Your task to perform on an android device: open app "Truecaller" Image 0: 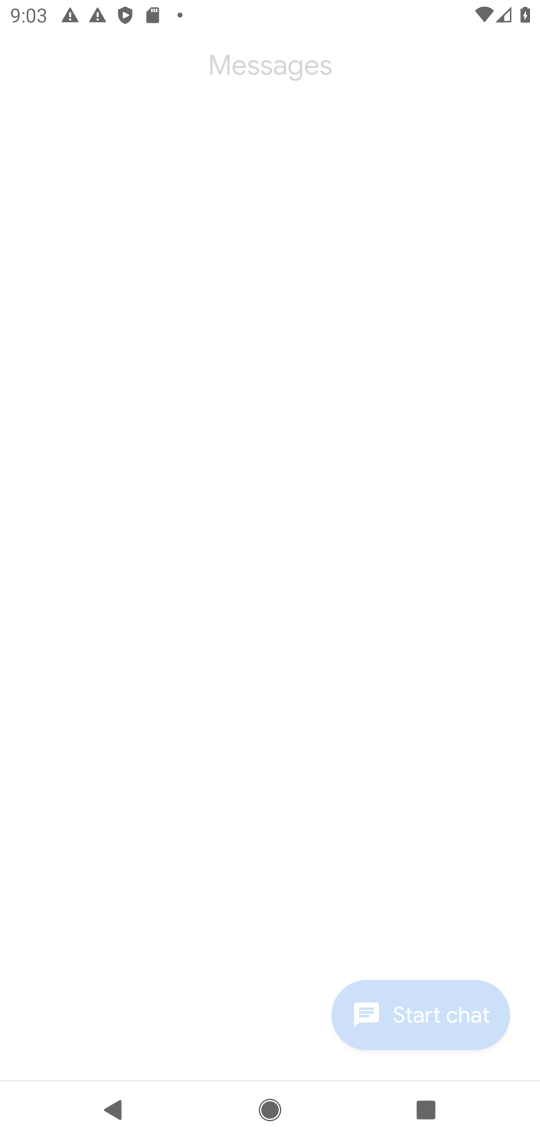
Step 0: click (446, 62)
Your task to perform on an android device: open app "Truecaller" Image 1: 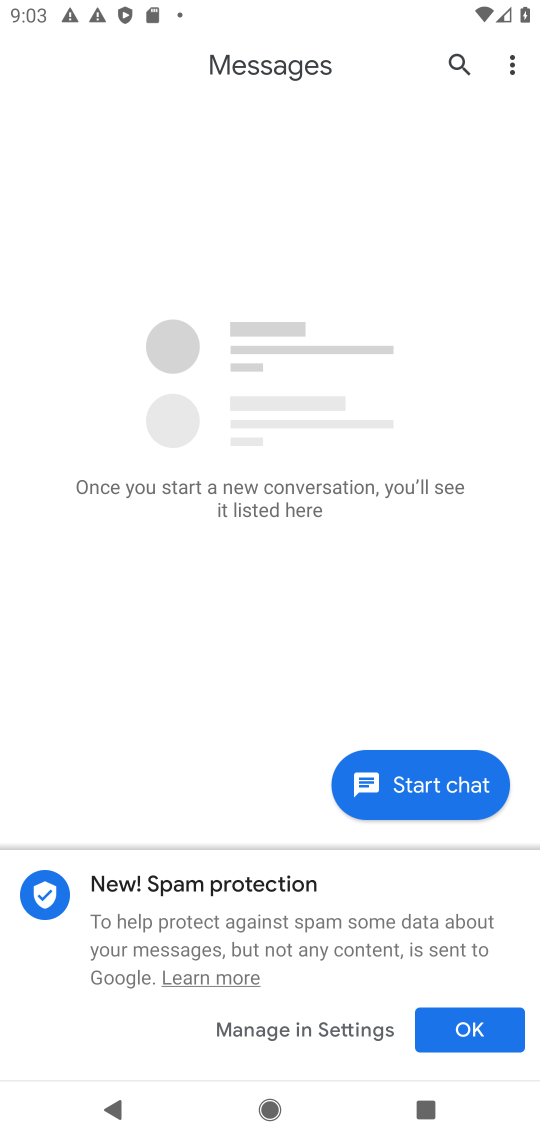
Step 1: press home button
Your task to perform on an android device: open app "Truecaller" Image 2: 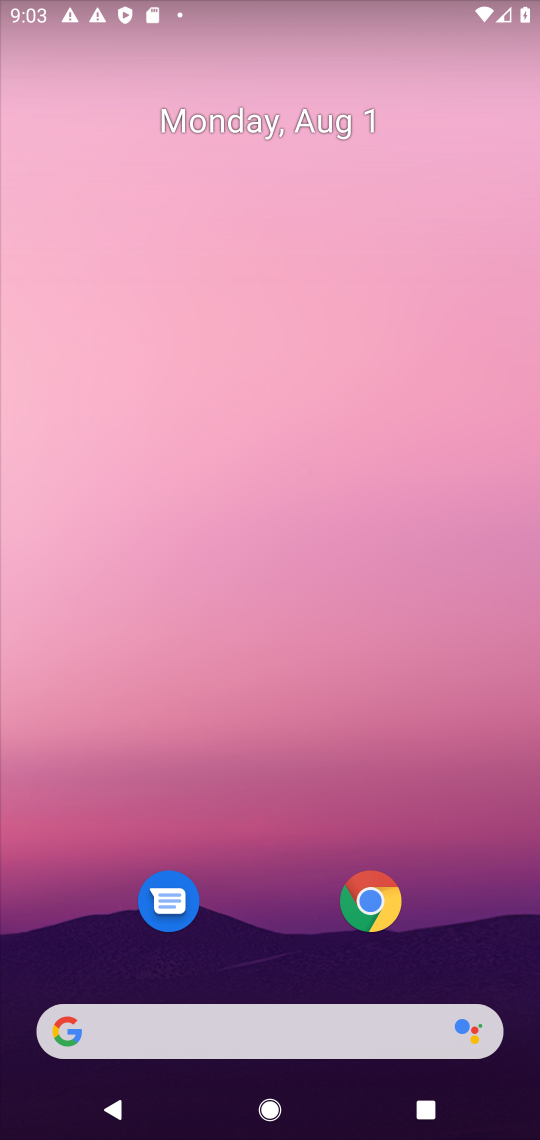
Step 2: drag from (267, 914) to (479, 10)
Your task to perform on an android device: open app "Truecaller" Image 3: 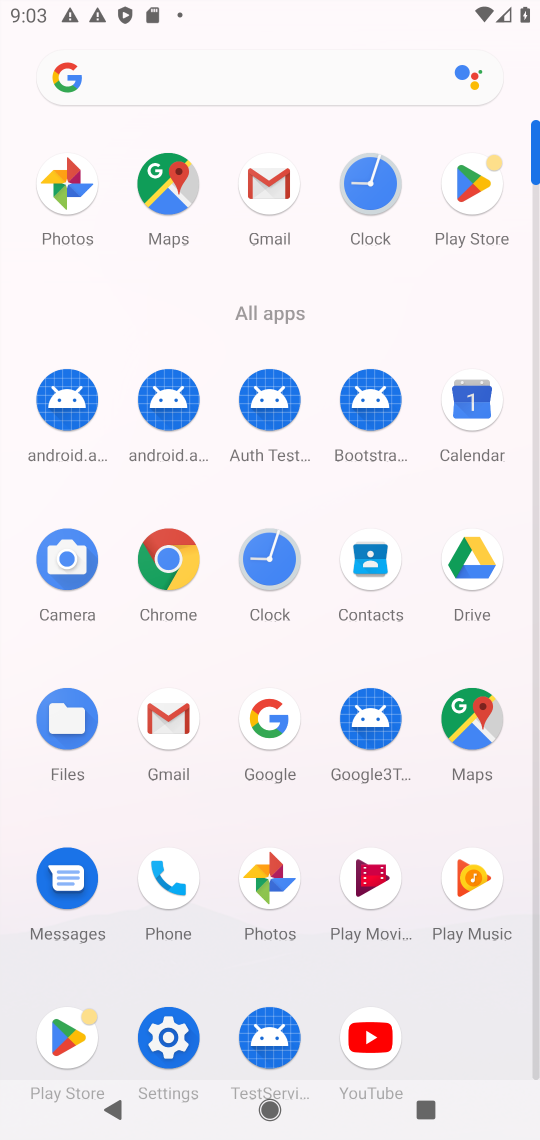
Step 3: click (468, 195)
Your task to perform on an android device: open app "Truecaller" Image 4: 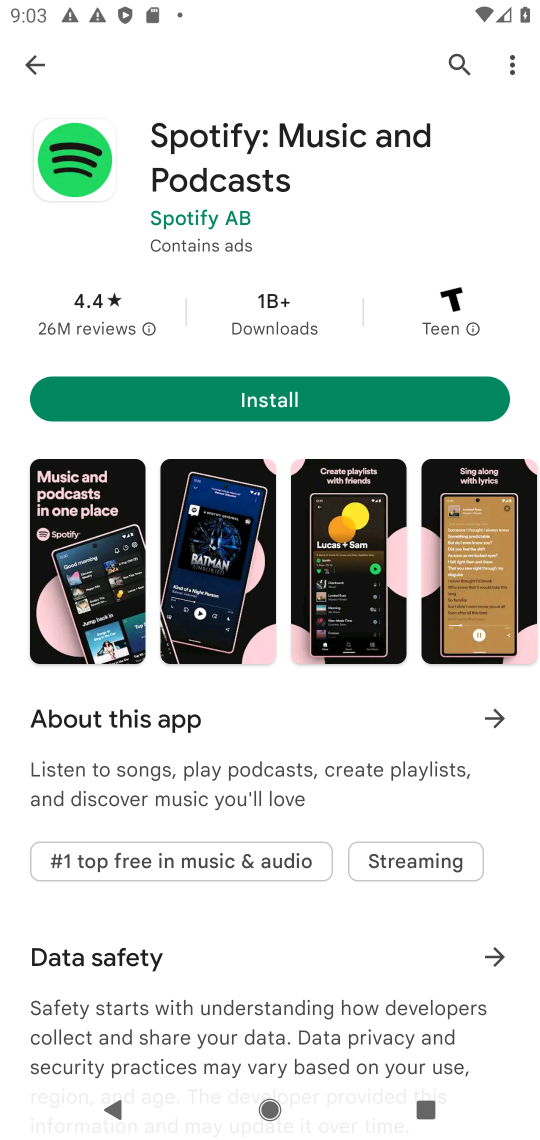
Step 4: click (461, 59)
Your task to perform on an android device: open app "Truecaller" Image 5: 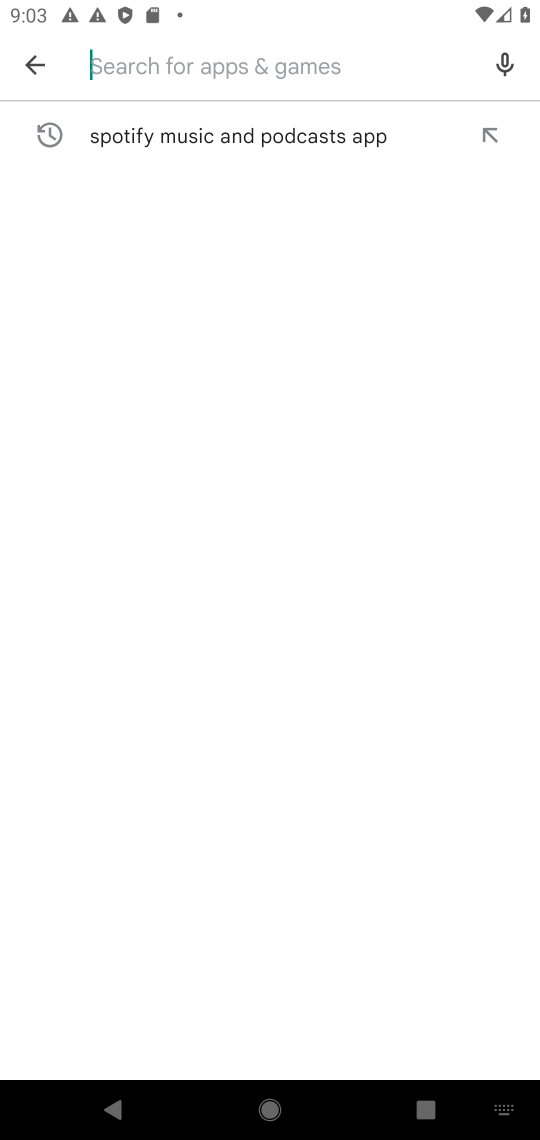
Step 5: type "truecaller"
Your task to perform on an android device: open app "Truecaller" Image 6: 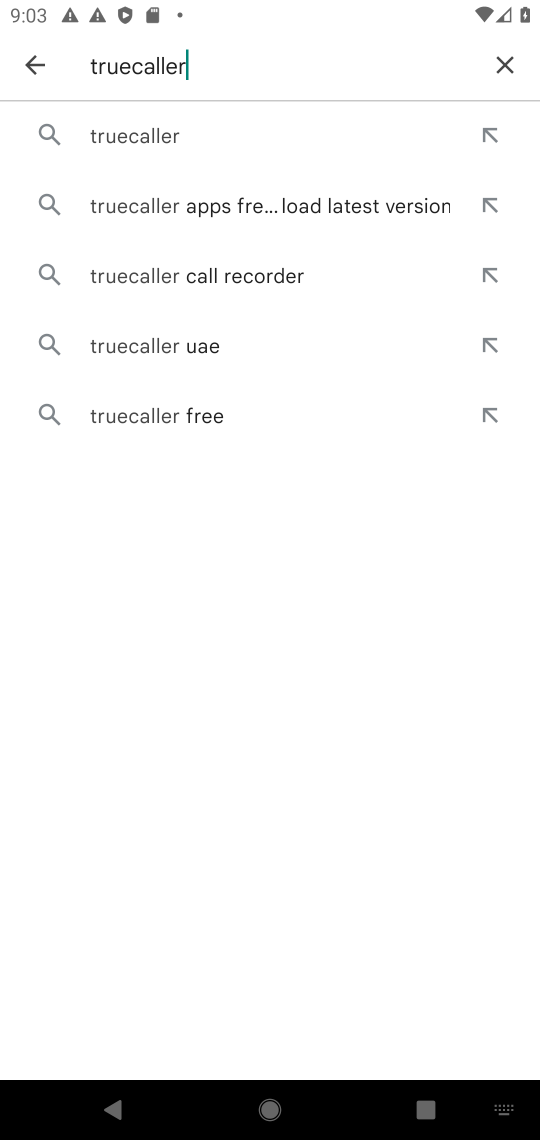
Step 6: click (284, 122)
Your task to perform on an android device: open app "Truecaller" Image 7: 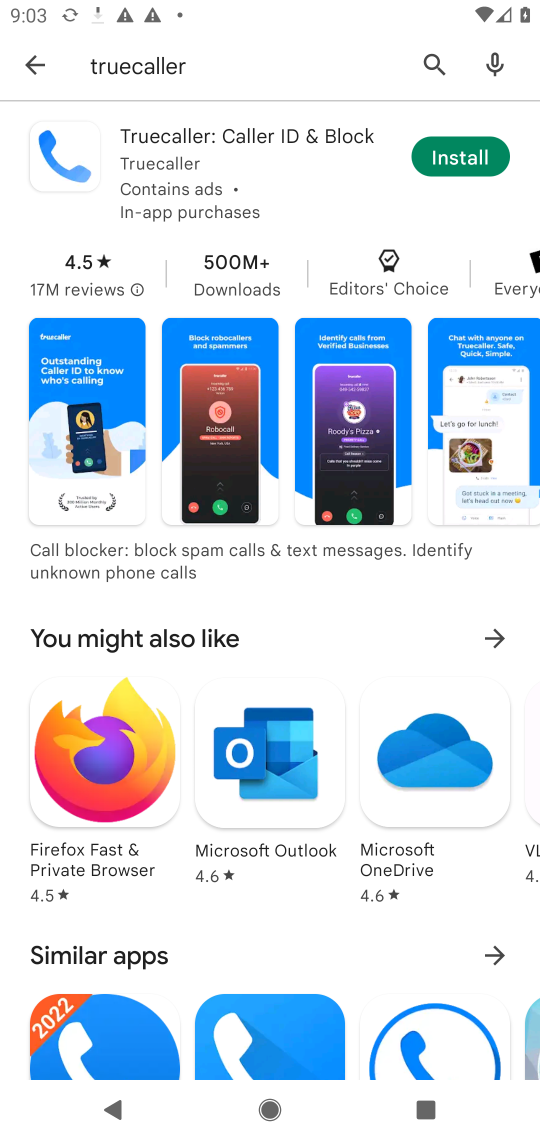
Step 7: click (250, 153)
Your task to perform on an android device: open app "Truecaller" Image 8: 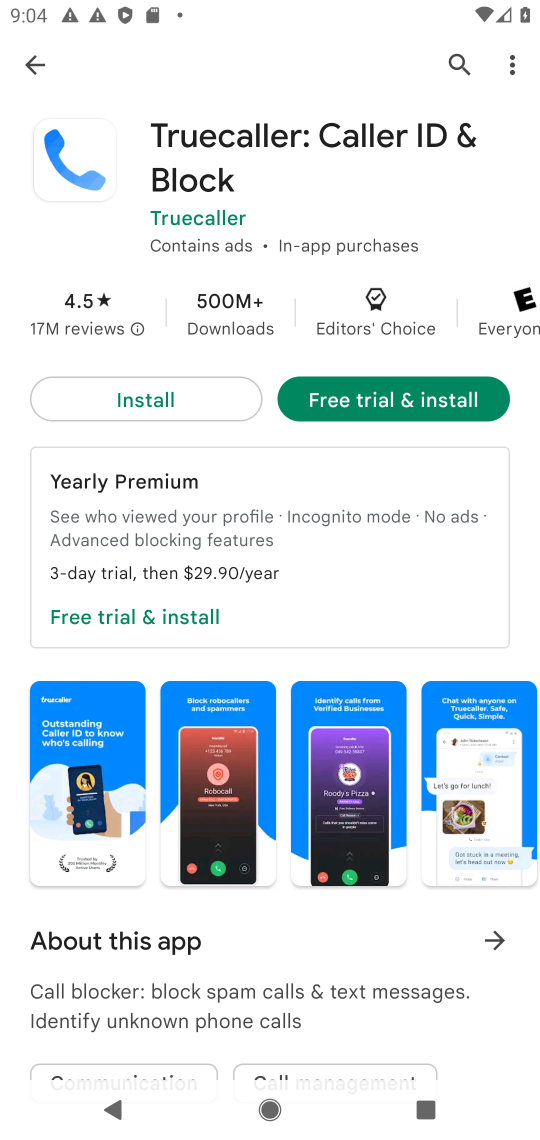
Step 8: task complete